Your task to perform on an android device: Open accessibility settings Image 0: 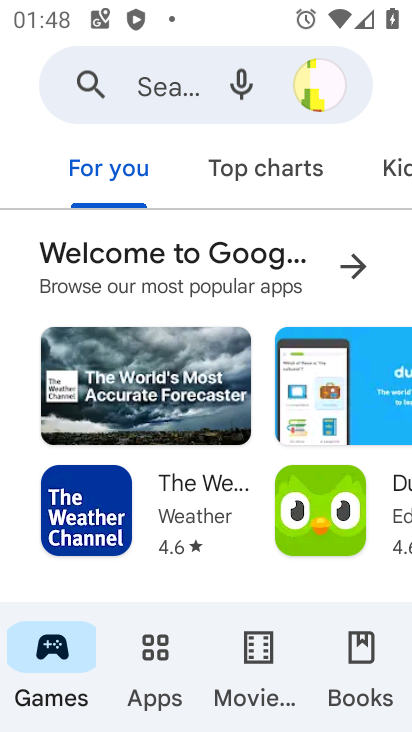
Step 0: press home button
Your task to perform on an android device: Open accessibility settings Image 1: 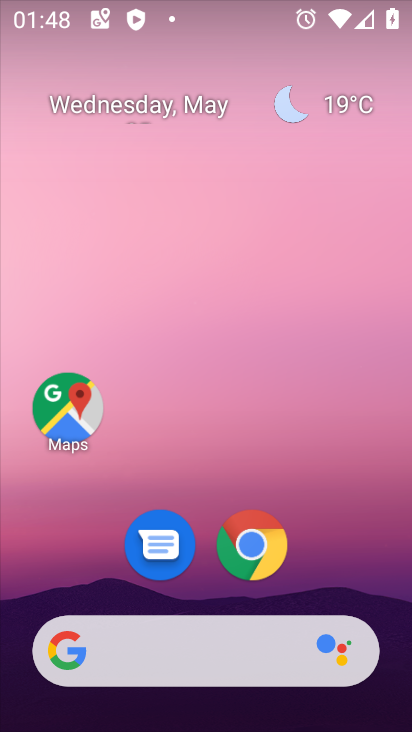
Step 1: drag from (320, 495) to (297, 28)
Your task to perform on an android device: Open accessibility settings Image 2: 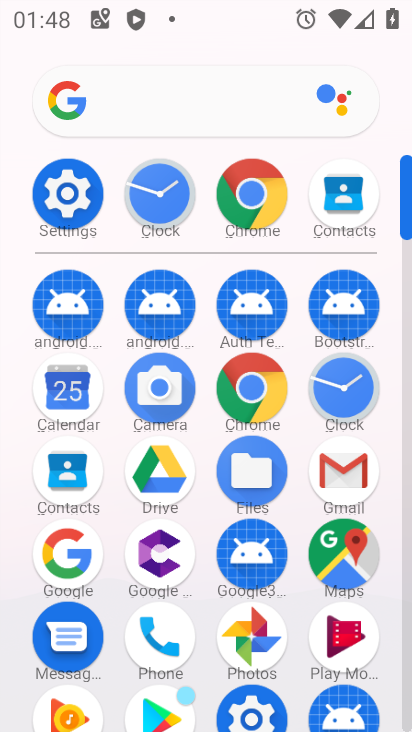
Step 2: click (87, 184)
Your task to perform on an android device: Open accessibility settings Image 3: 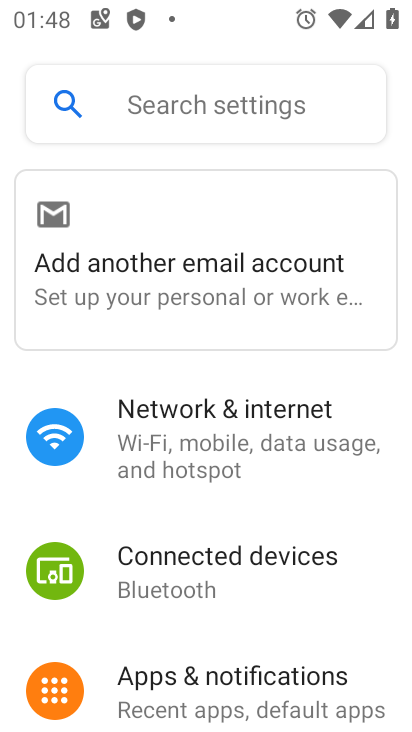
Step 3: drag from (277, 605) to (301, 73)
Your task to perform on an android device: Open accessibility settings Image 4: 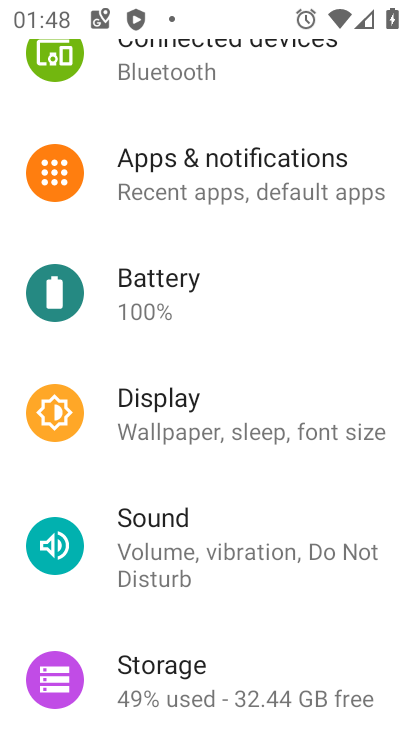
Step 4: drag from (179, 607) to (288, 137)
Your task to perform on an android device: Open accessibility settings Image 5: 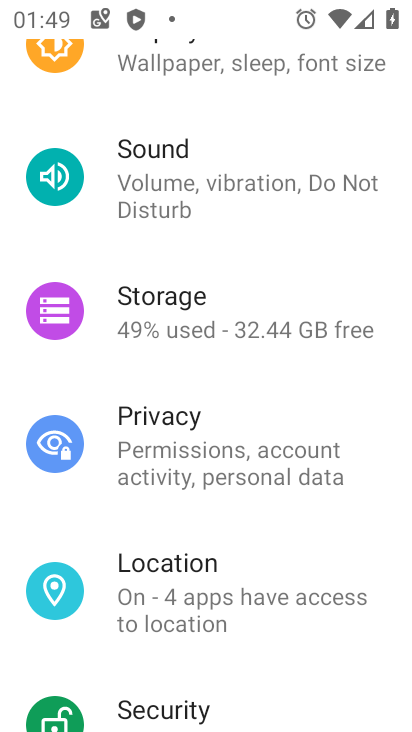
Step 5: drag from (186, 602) to (276, 116)
Your task to perform on an android device: Open accessibility settings Image 6: 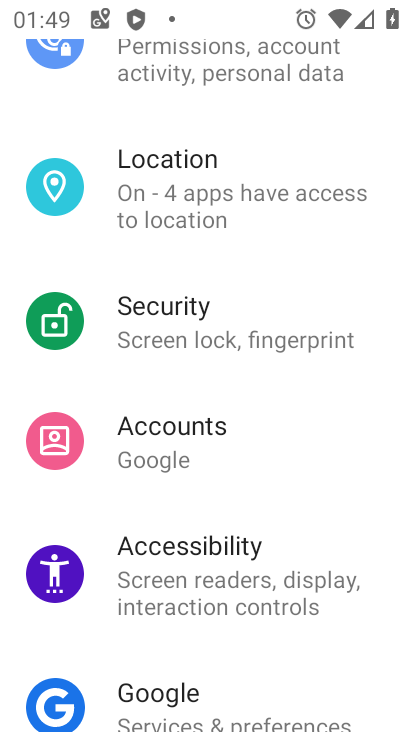
Step 6: click (181, 542)
Your task to perform on an android device: Open accessibility settings Image 7: 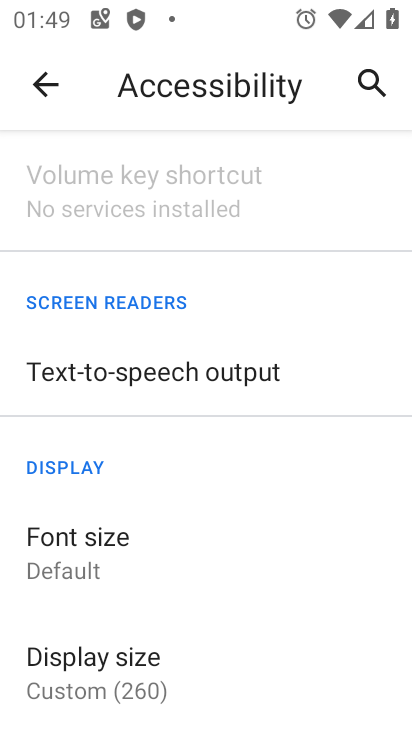
Step 7: task complete